Your task to perform on an android device: Go to settings Image 0: 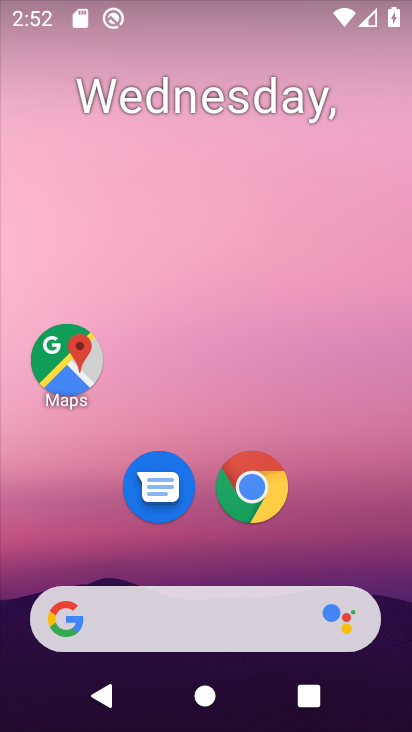
Step 0: drag from (156, 708) to (207, 123)
Your task to perform on an android device: Go to settings Image 1: 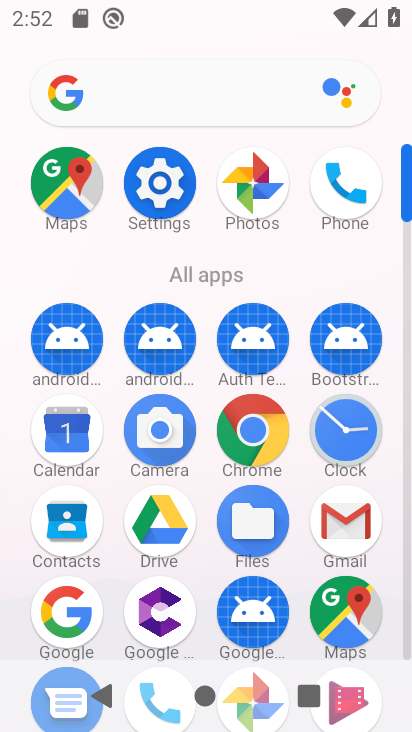
Step 1: click (194, 186)
Your task to perform on an android device: Go to settings Image 2: 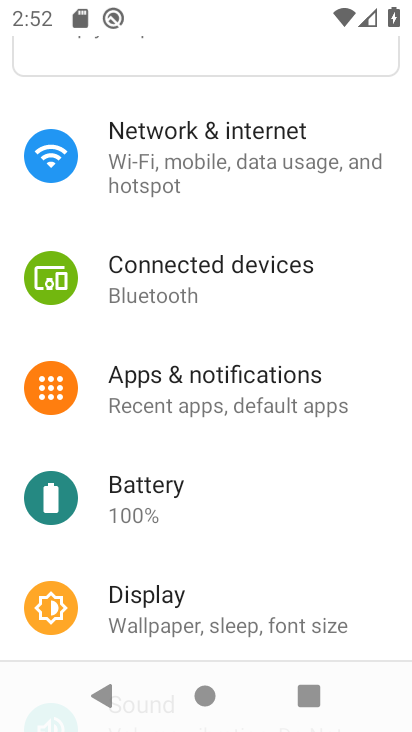
Step 2: task complete